Your task to perform on an android device: Show me the top rated dinnerware on Crate & Barrel Image 0: 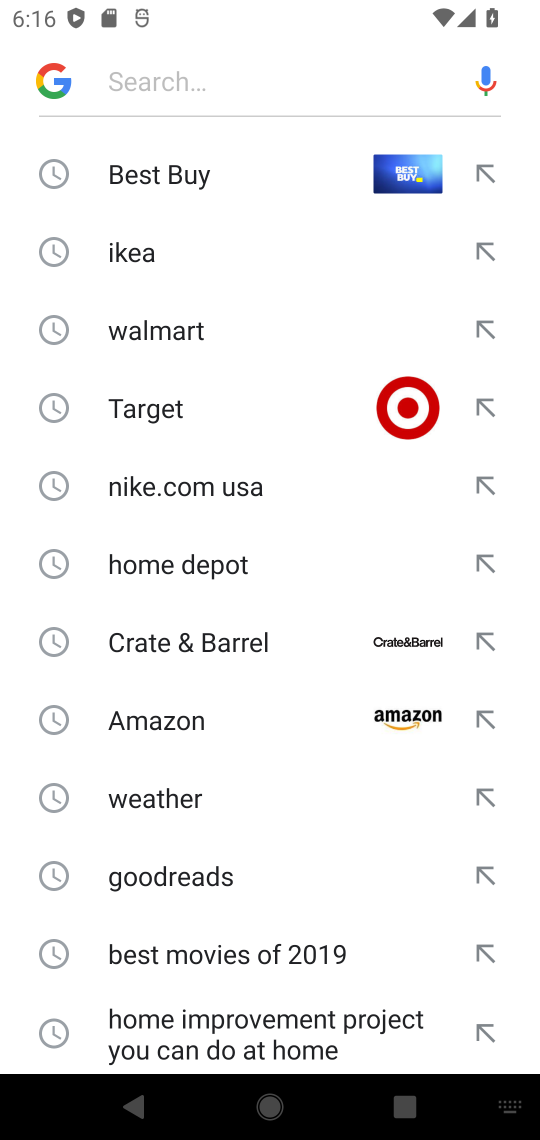
Step 0: type "Crate & Barrel"
Your task to perform on an android device: Show me the top rated dinnerware on Crate & Barrel Image 1: 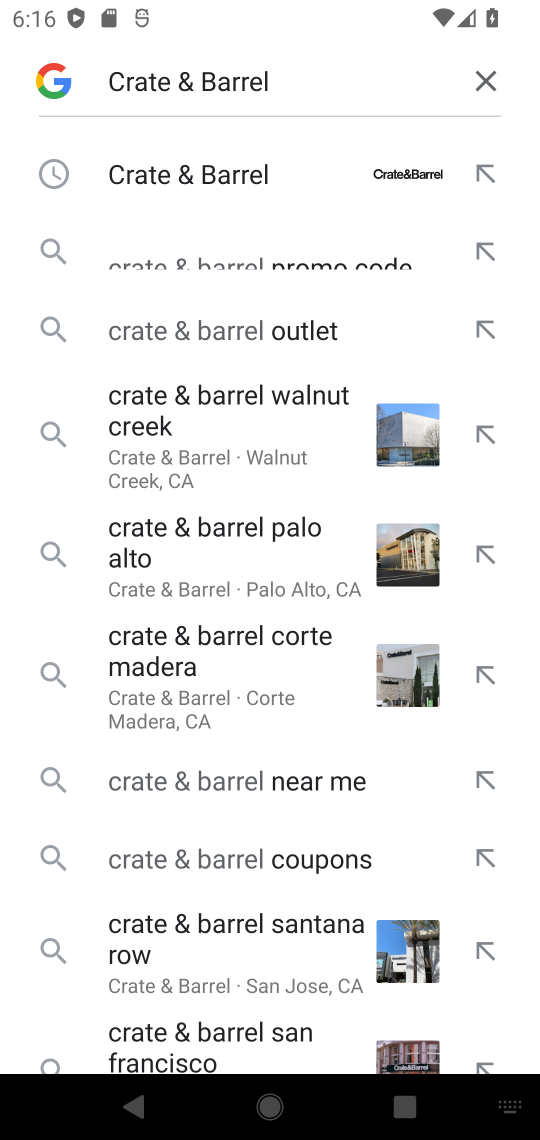
Step 1: click (306, 183)
Your task to perform on an android device: Show me the top rated dinnerware on Crate & Barrel Image 2: 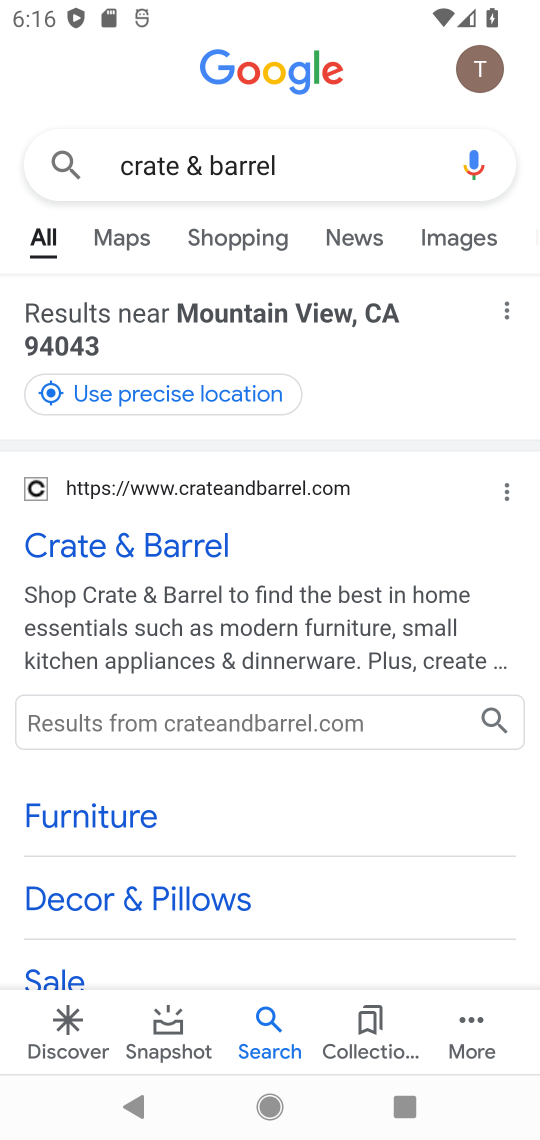
Step 2: click (131, 559)
Your task to perform on an android device: Show me the top rated dinnerware on Crate & Barrel Image 3: 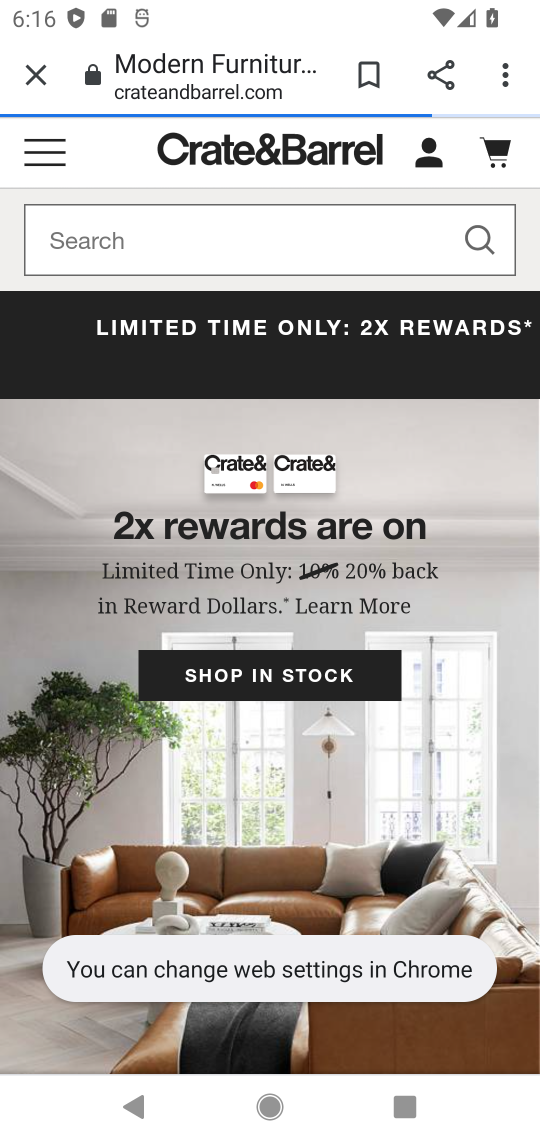
Step 3: click (280, 232)
Your task to perform on an android device: Show me the top rated dinnerware on Crate & Barrel Image 4: 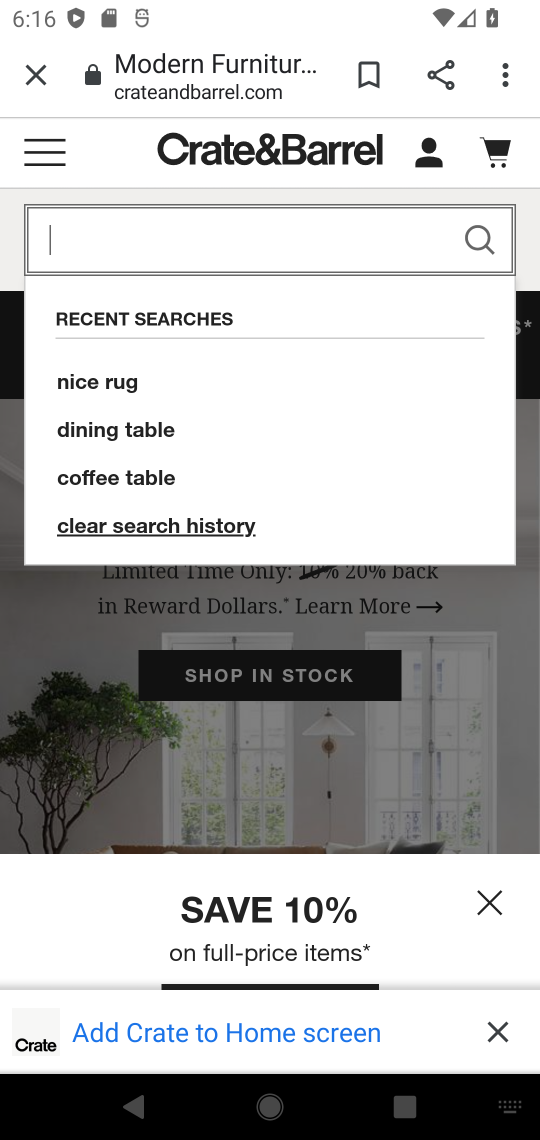
Step 4: type "op rated dinnerware"
Your task to perform on an android device: Show me the top rated dinnerware on Crate & Barrel Image 5: 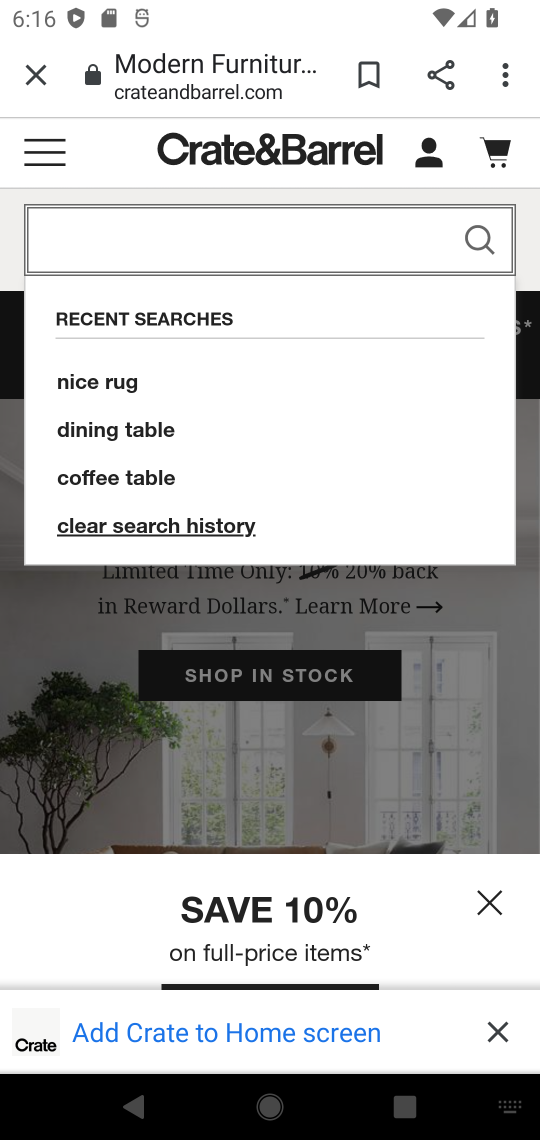
Step 5: type ""
Your task to perform on an android device: Show me the top rated dinnerware on Crate & Barrel Image 6: 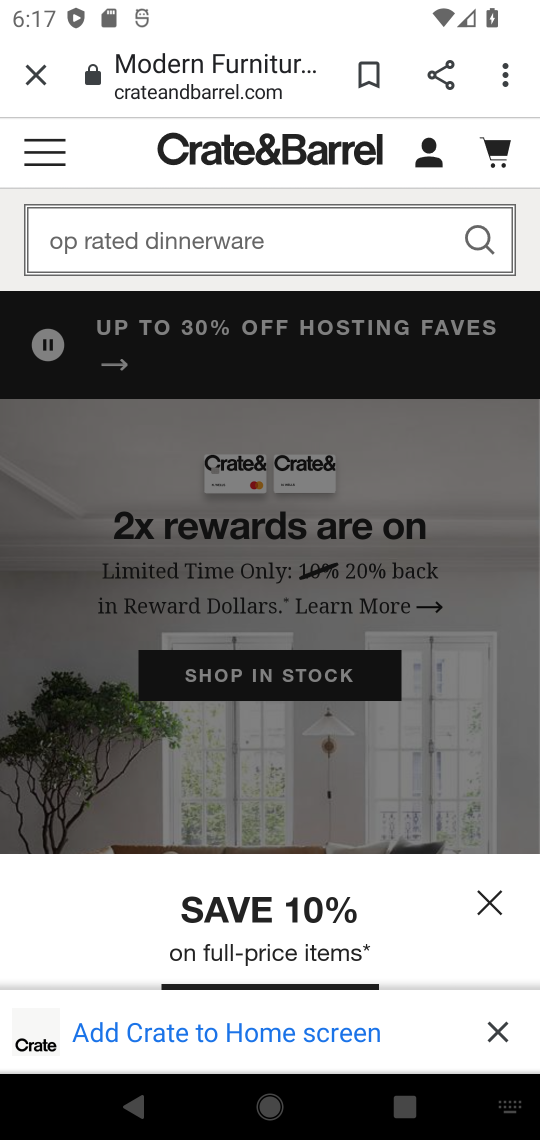
Step 6: click (464, 242)
Your task to perform on an android device: Show me the top rated dinnerware on Crate & Barrel Image 7: 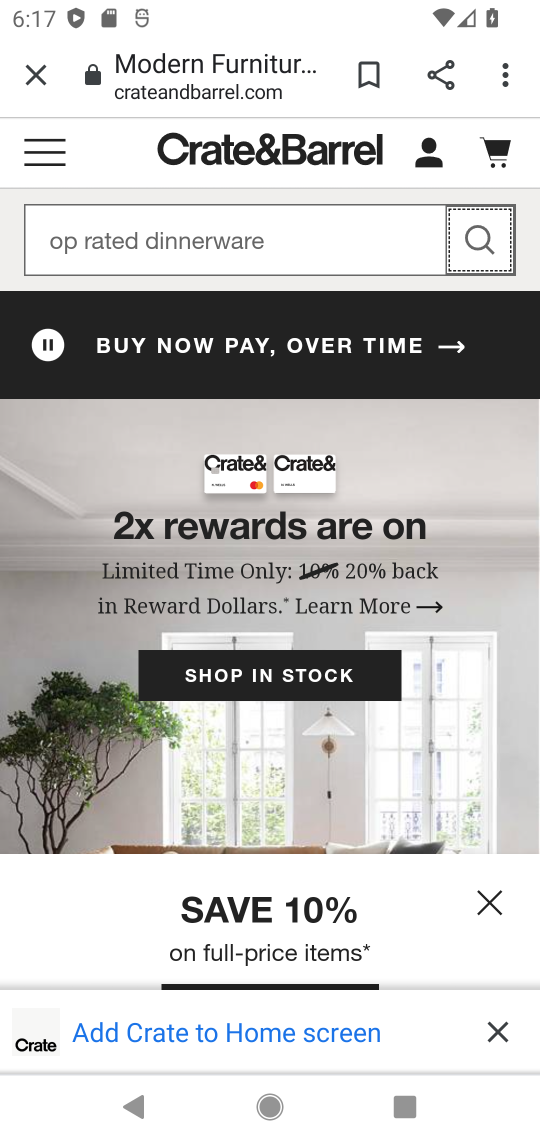
Step 7: click (394, 248)
Your task to perform on an android device: Show me the top rated dinnerware on Crate & Barrel Image 8: 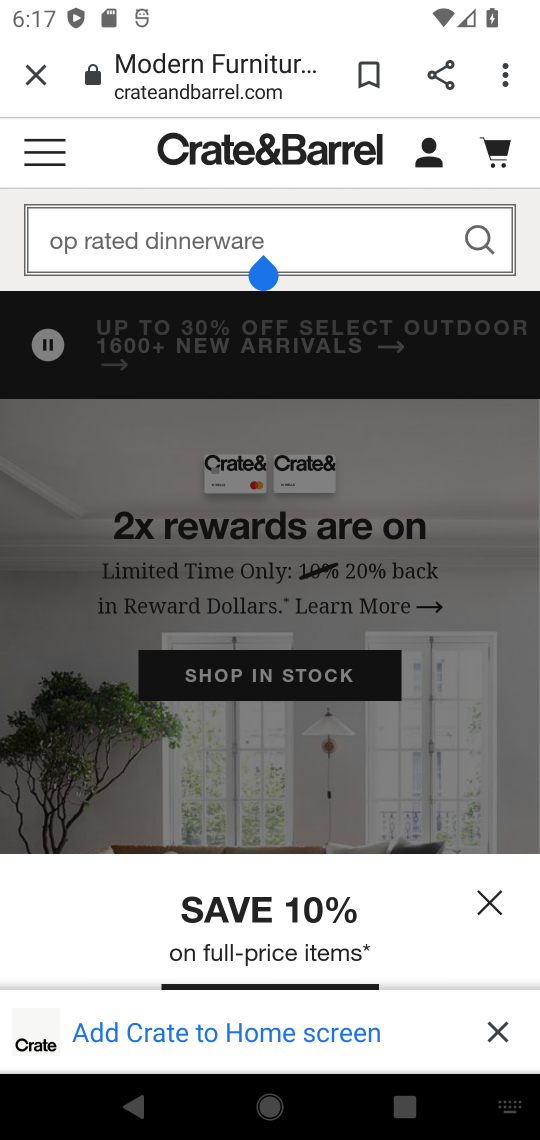
Step 8: click (418, 236)
Your task to perform on an android device: Show me the top rated dinnerware on Crate & Barrel Image 9: 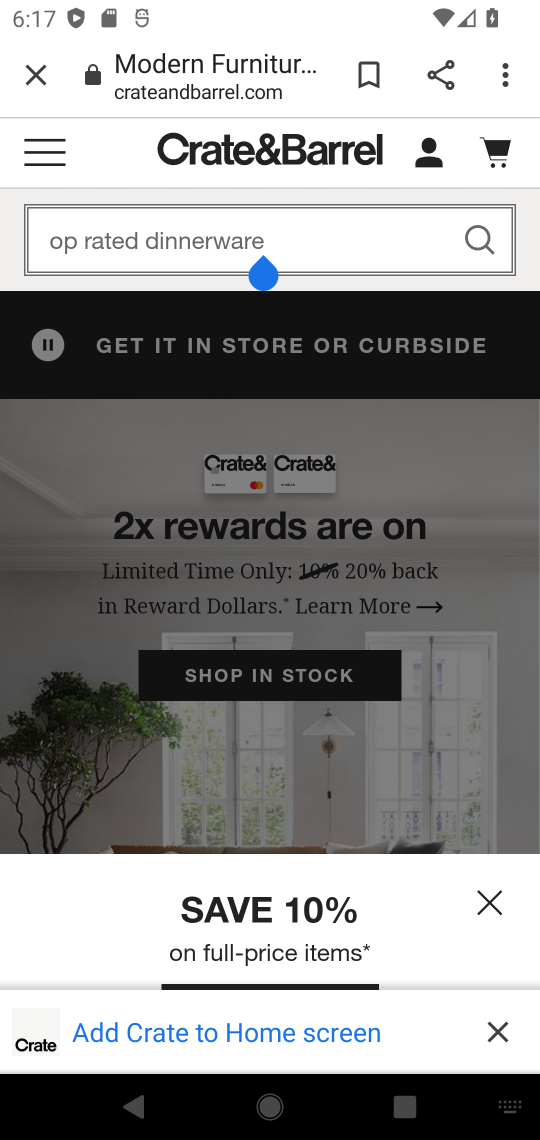
Step 9: click (408, 245)
Your task to perform on an android device: Show me the top rated dinnerware on Crate & Barrel Image 10: 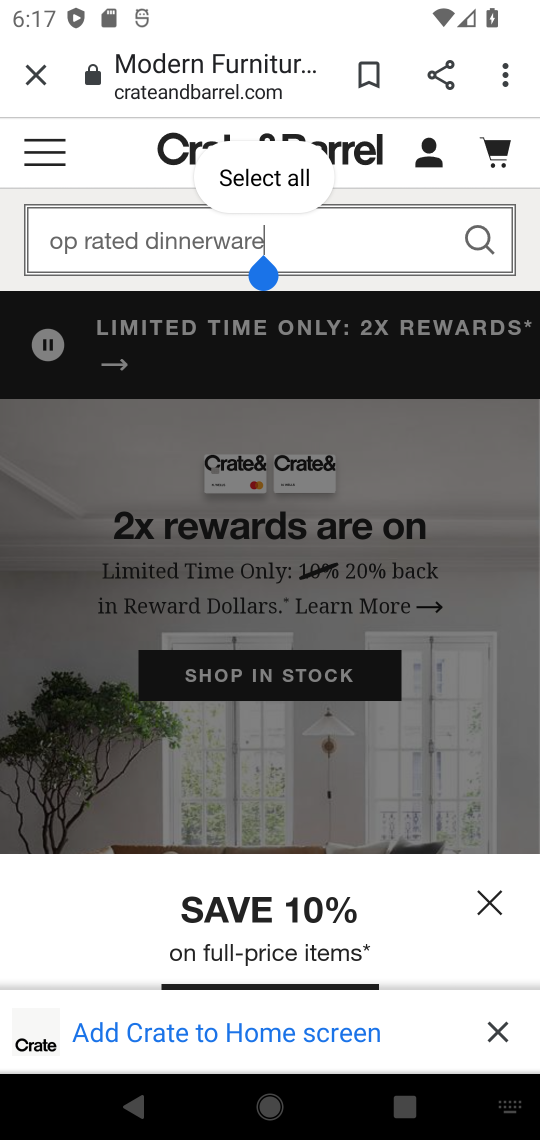
Step 10: click (467, 233)
Your task to perform on an android device: Show me the top rated dinnerware on Crate & Barrel Image 11: 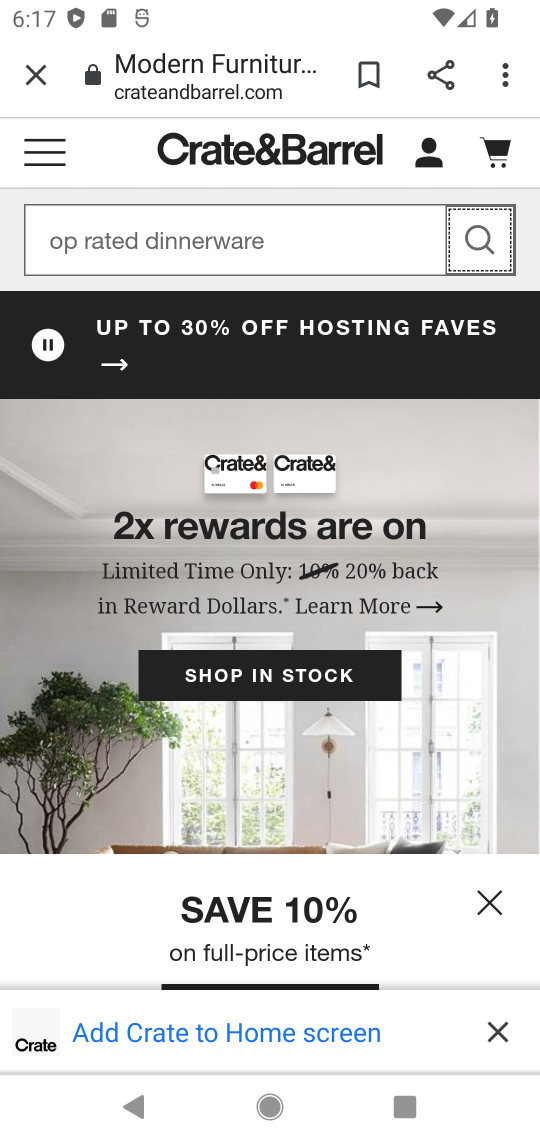
Step 11: task complete